Your task to perform on an android device: change the upload size in google photos Image 0: 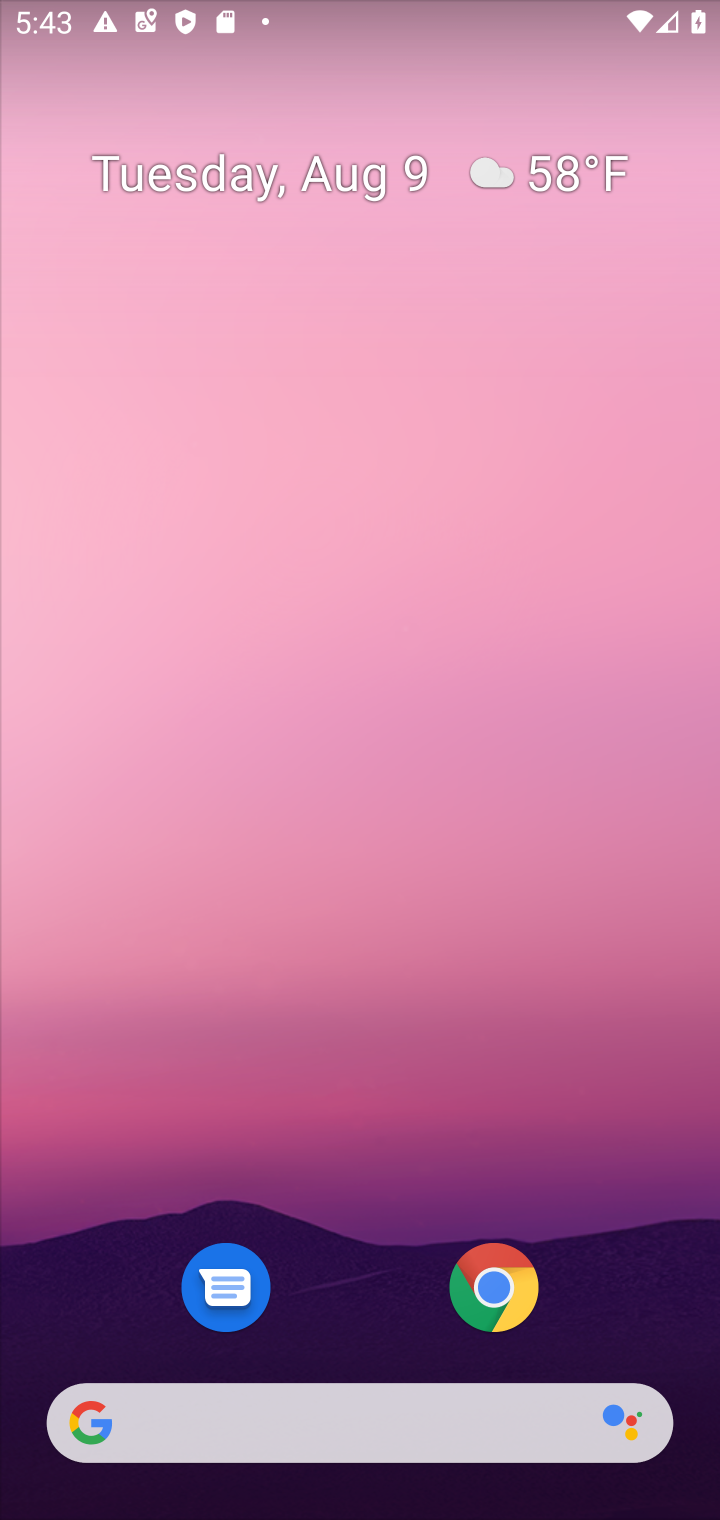
Step 0: drag from (368, 1099) to (346, 393)
Your task to perform on an android device: change the upload size in google photos Image 1: 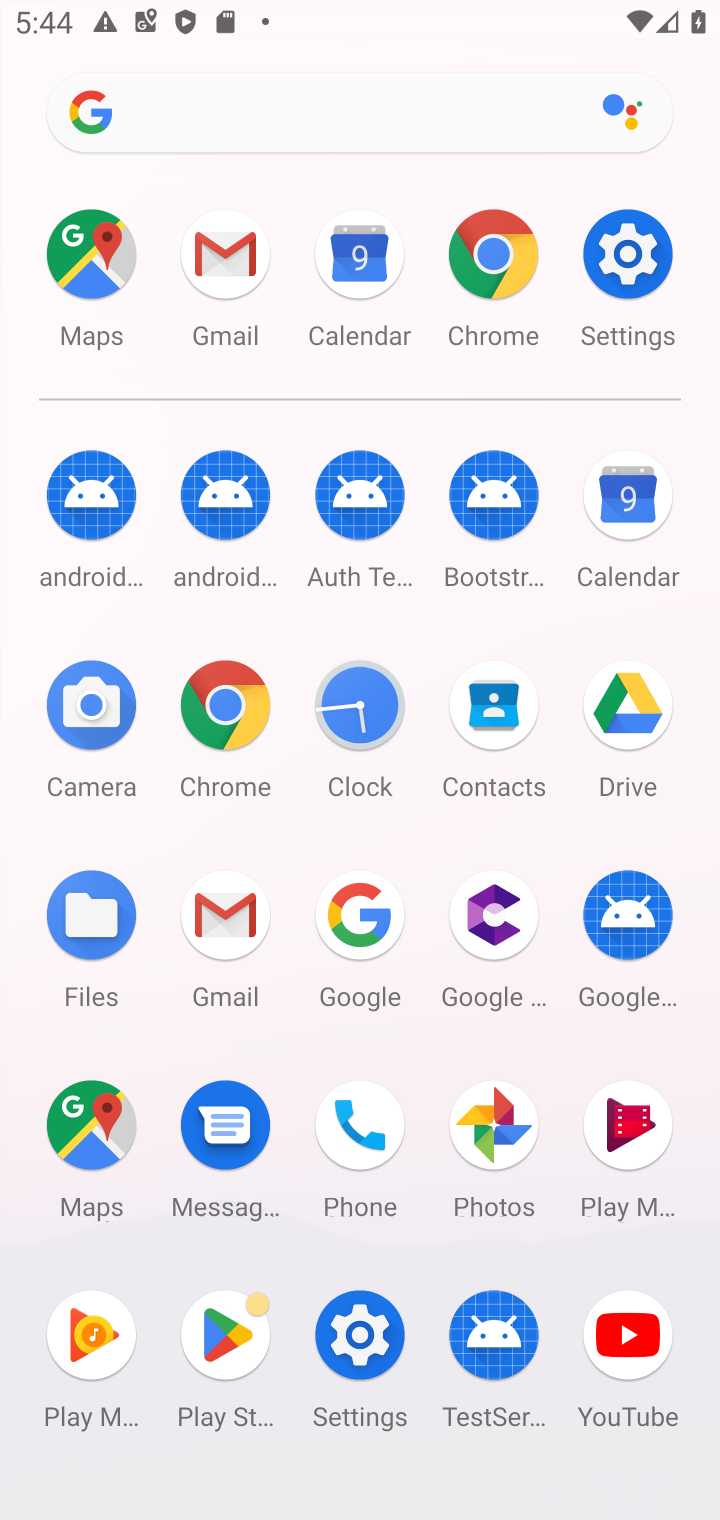
Step 1: click (241, 704)
Your task to perform on an android device: change the upload size in google photos Image 2: 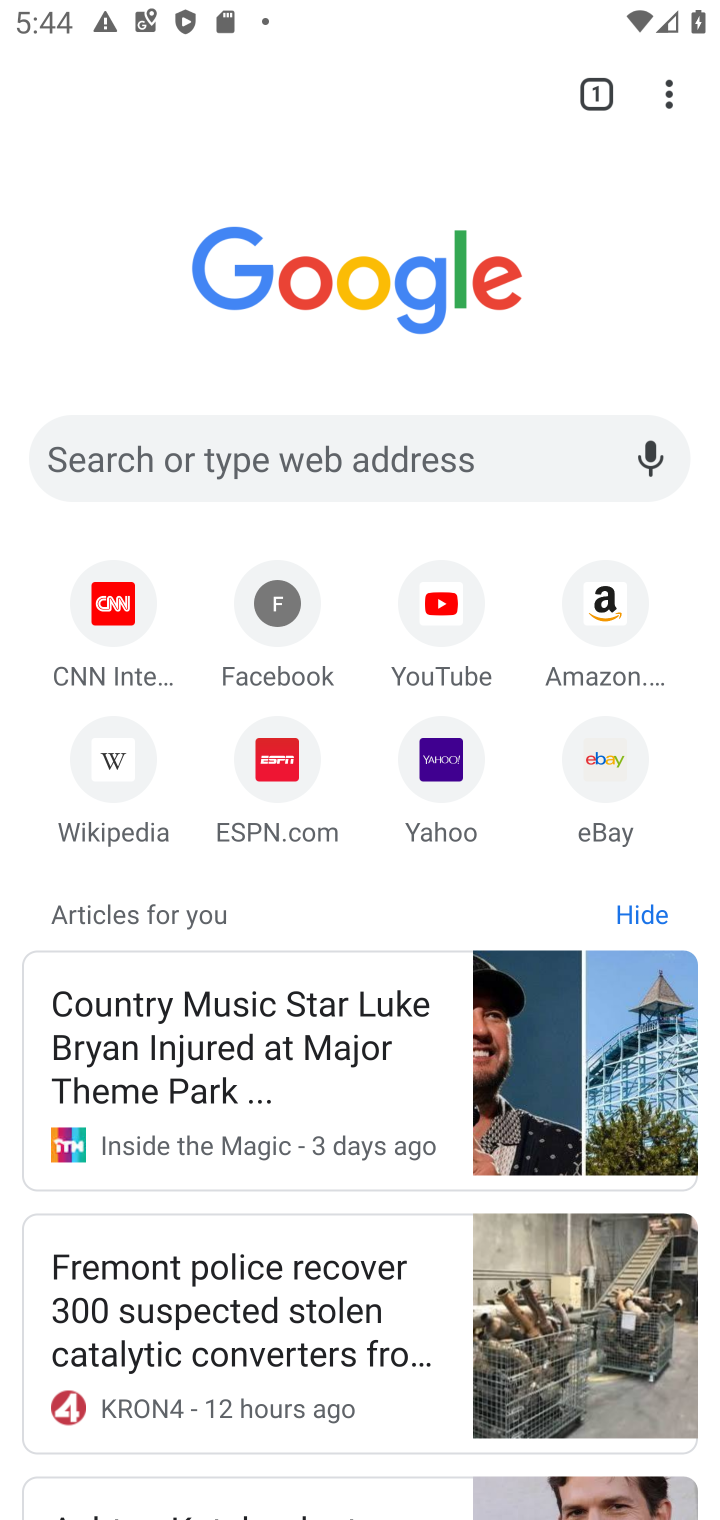
Step 2: press home button
Your task to perform on an android device: change the upload size in google photos Image 3: 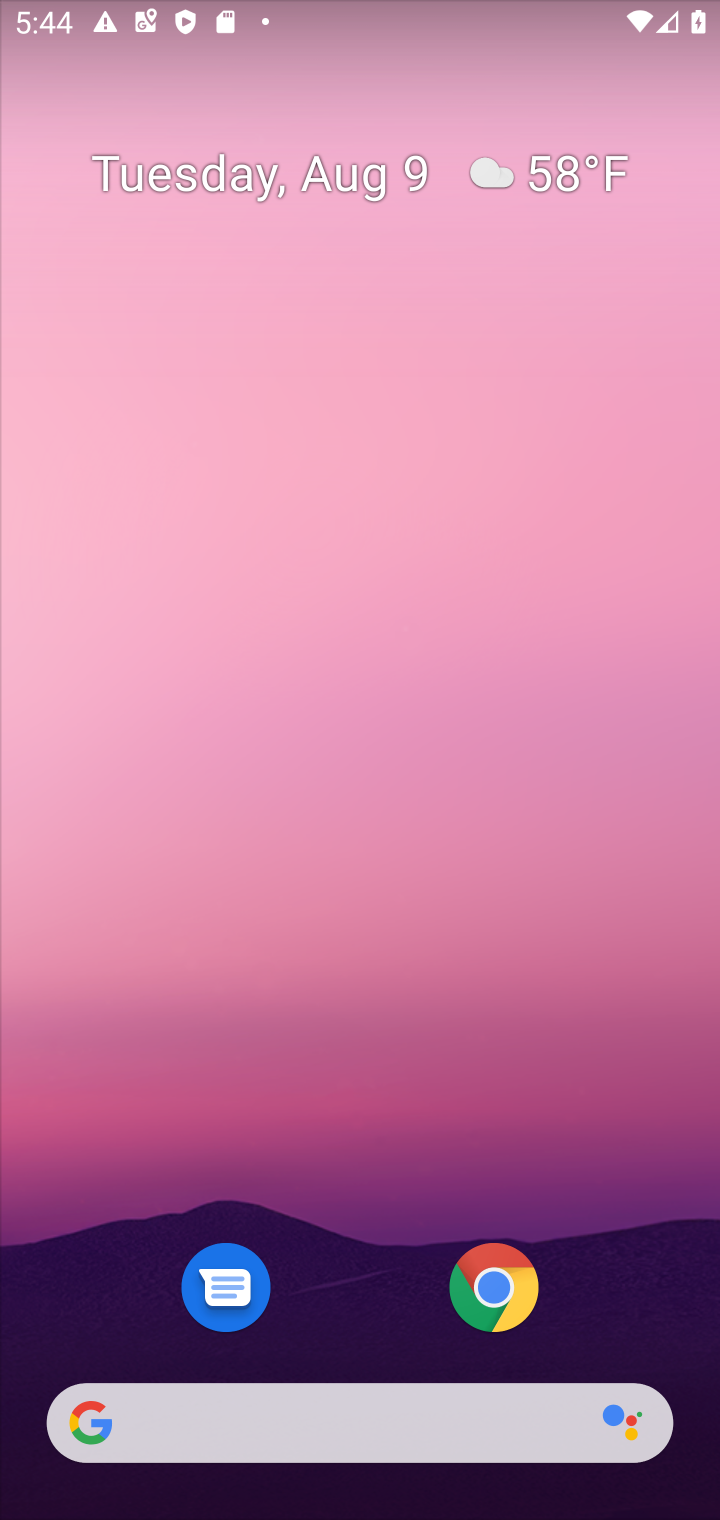
Step 3: drag from (356, 1119) to (464, 243)
Your task to perform on an android device: change the upload size in google photos Image 4: 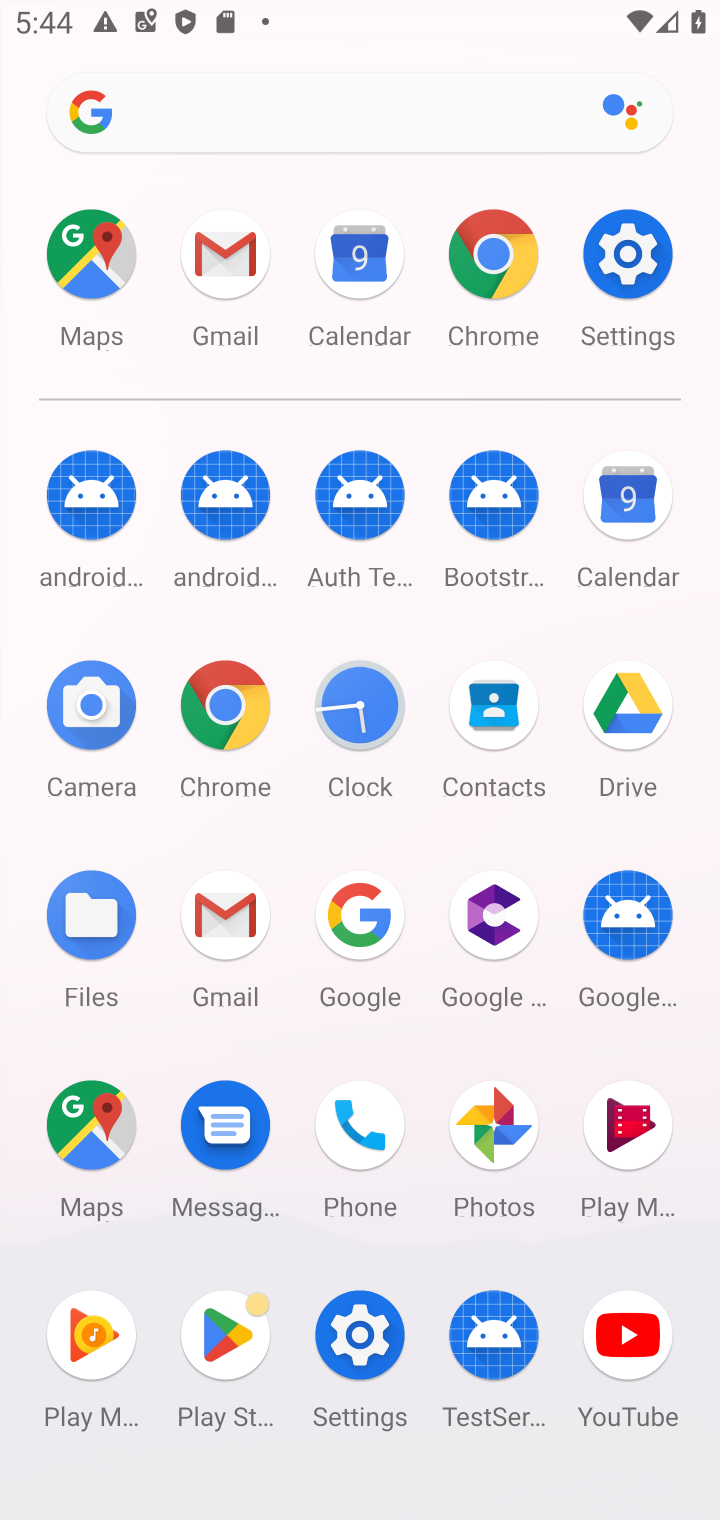
Step 4: click (214, 731)
Your task to perform on an android device: change the upload size in google photos Image 5: 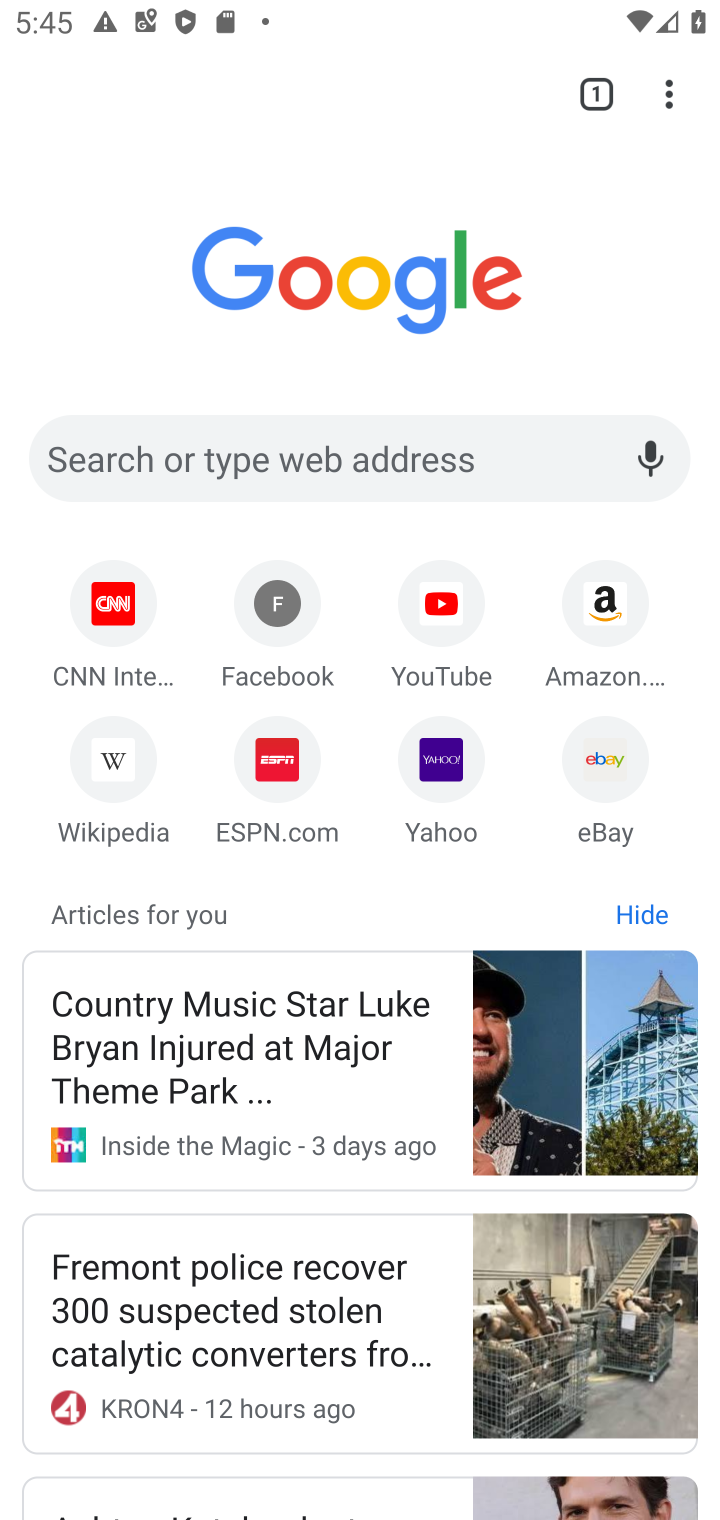
Step 5: task complete